Your task to perform on an android device: open wifi settings Image 0: 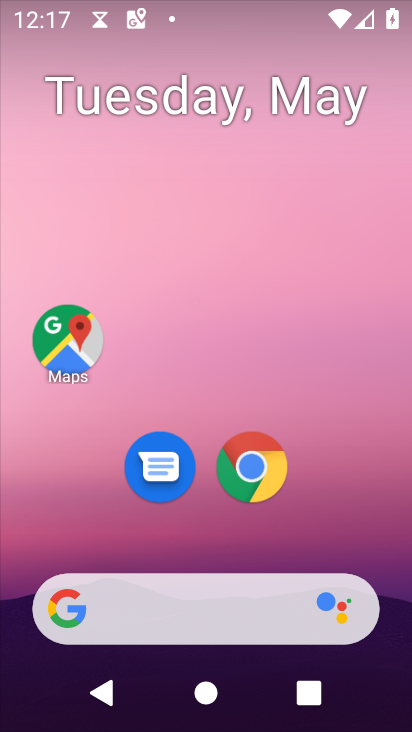
Step 0: drag from (352, 510) to (264, 37)
Your task to perform on an android device: open wifi settings Image 1: 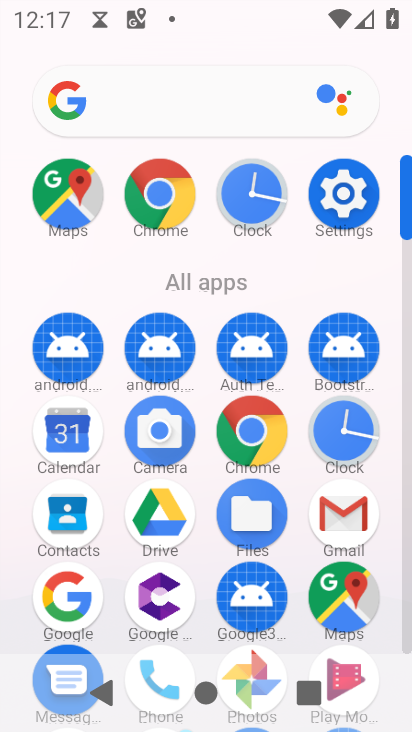
Step 1: click (351, 197)
Your task to perform on an android device: open wifi settings Image 2: 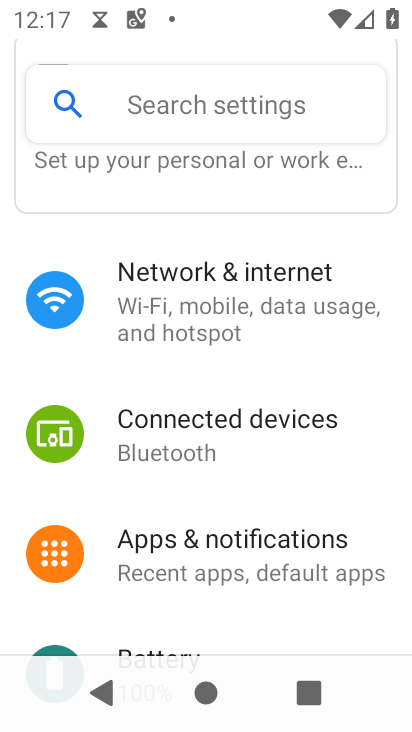
Step 2: click (234, 287)
Your task to perform on an android device: open wifi settings Image 3: 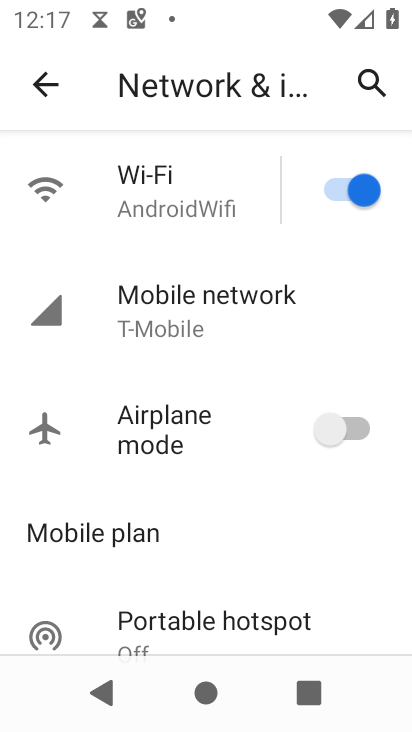
Step 3: click (157, 180)
Your task to perform on an android device: open wifi settings Image 4: 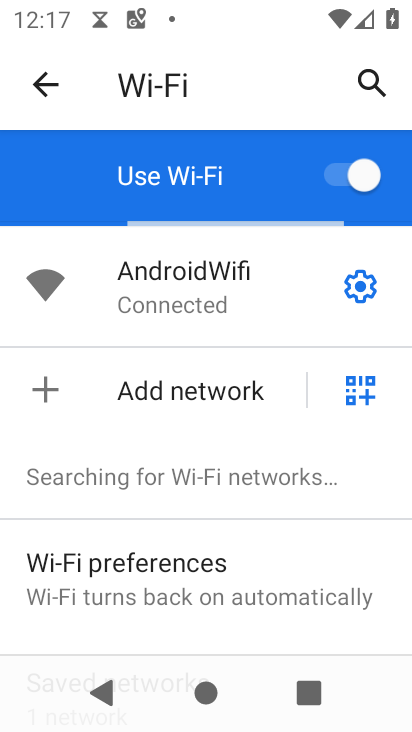
Step 4: task complete